Your task to perform on an android device: turn notification dots off Image 0: 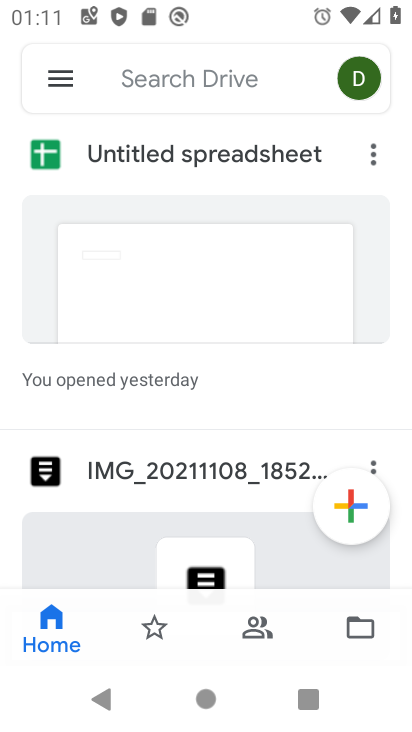
Step 0: press home button
Your task to perform on an android device: turn notification dots off Image 1: 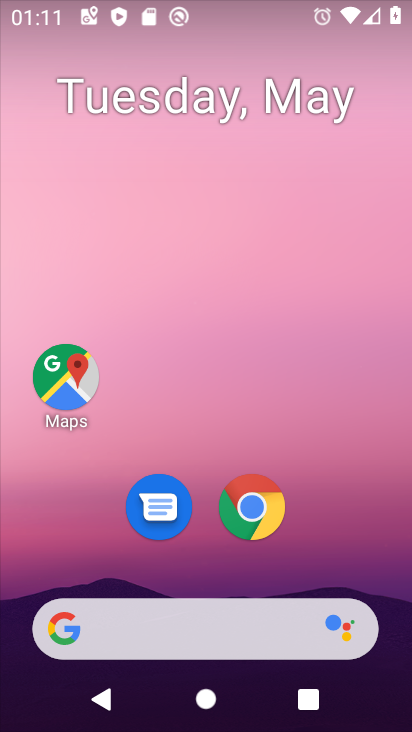
Step 1: drag from (132, 593) to (123, 248)
Your task to perform on an android device: turn notification dots off Image 2: 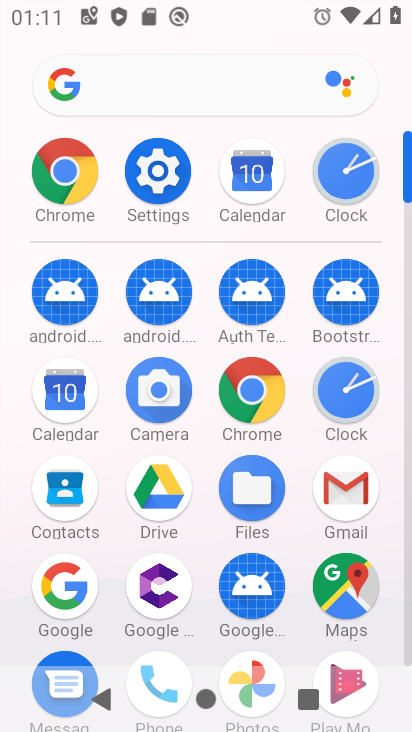
Step 2: click (148, 163)
Your task to perform on an android device: turn notification dots off Image 3: 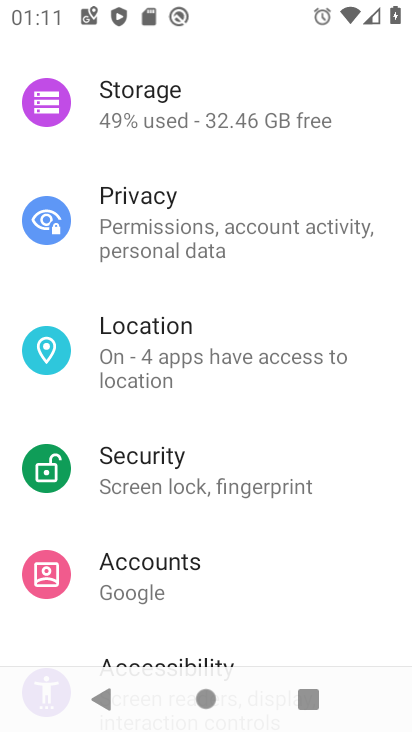
Step 3: drag from (181, 100) to (201, 489)
Your task to perform on an android device: turn notification dots off Image 4: 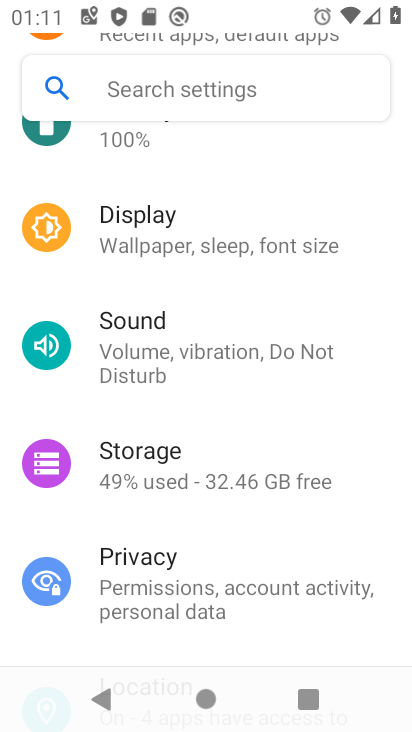
Step 4: drag from (214, 133) to (252, 510)
Your task to perform on an android device: turn notification dots off Image 5: 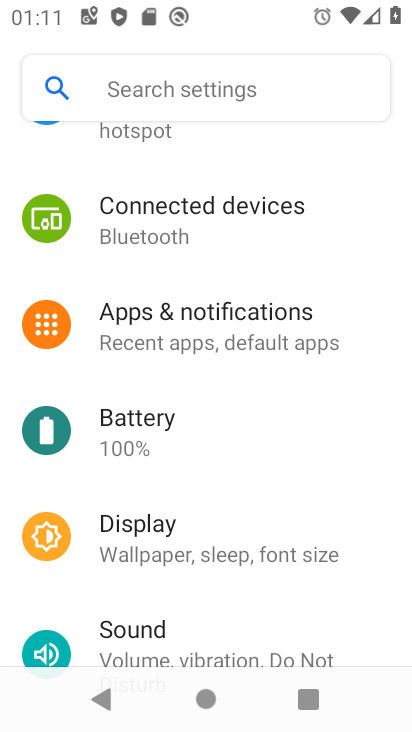
Step 5: click (184, 313)
Your task to perform on an android device: turn notification dots off Image 6: 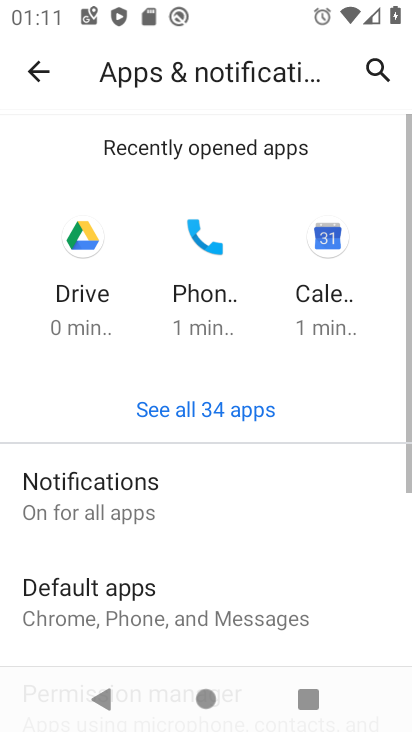
Step 6: click (159, 498)
Your task to perform on an android device: turn notification dots off Image 7: 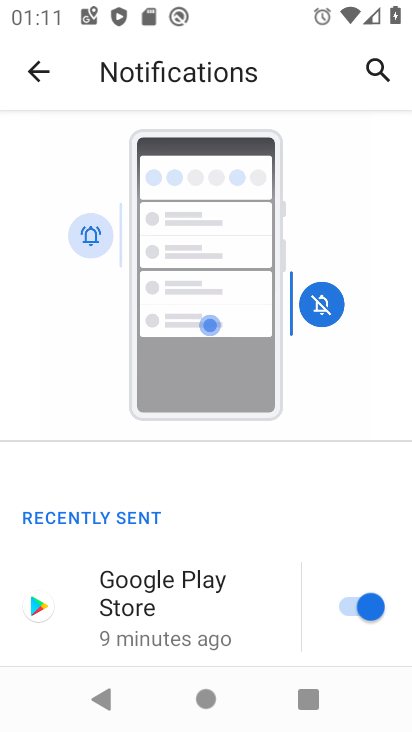
Step 7: drag from (164, 633) to (160, 309)
Your task to perform on an android device: turn notification dots off Image 8: 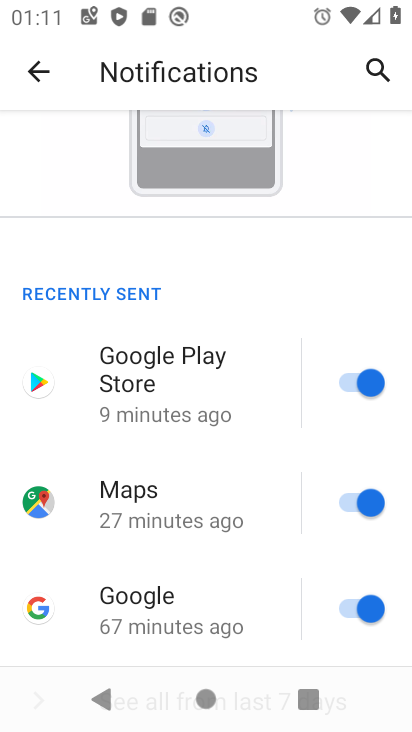
Step 8: drag from (188, 635) to (169, 324)
Your task to perform on an android device: turn notification dots off Image 9: 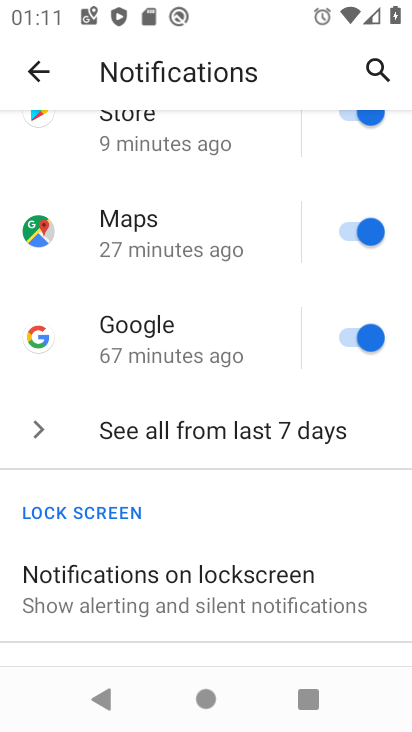
Step 9: drag from (190, 625) to (165, 297)
Your task to perform on an android device: turn notification dots off Image 10: 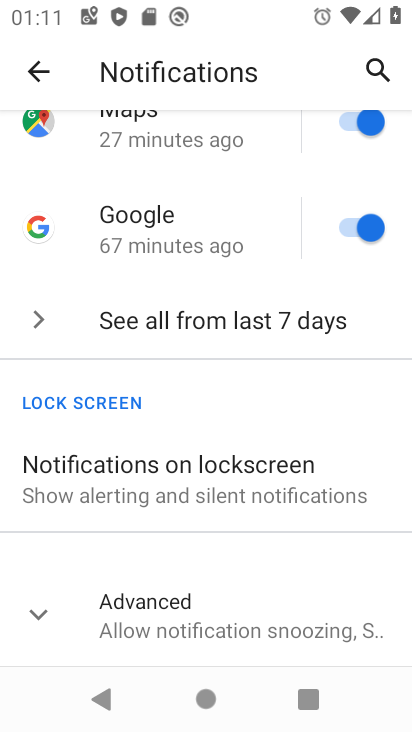
Step 10: click (180, 609)
Your task to perform on an android device: turn notification dots off Image 11: 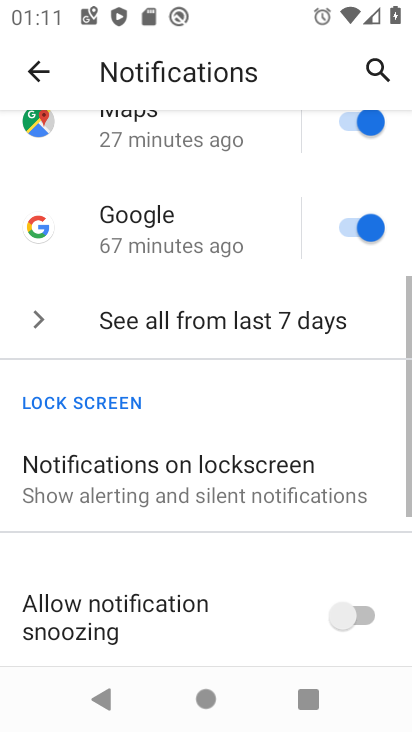
Step 11: task complete